Your task to perform on an android device: Is it going to rain today? Image 0: 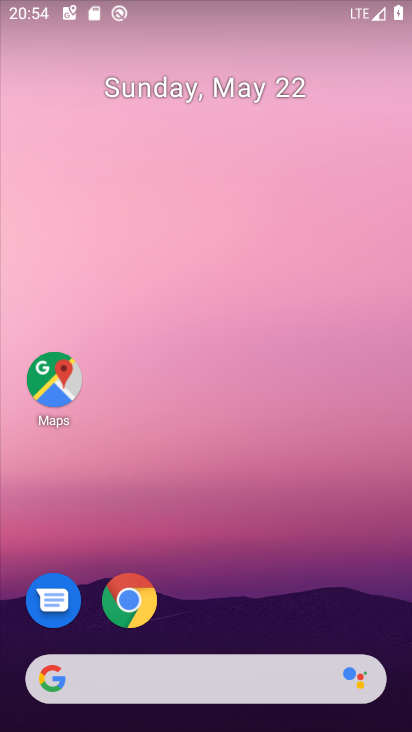
Step 0: drag from (177, 631) to (205, 337)
Your task to perform on an android device: Is it going to rain today? Image 1: 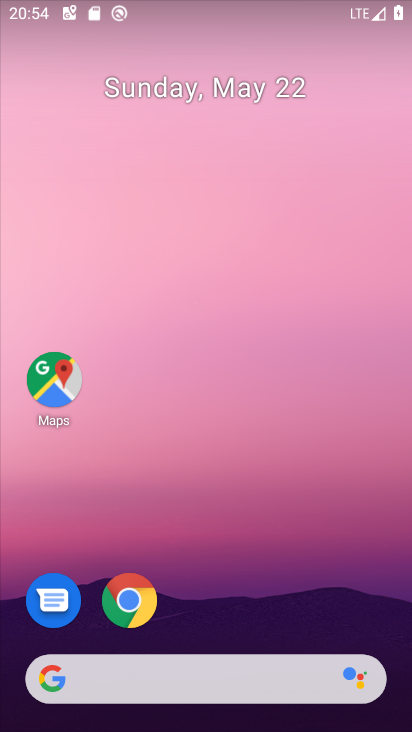
Step 1: drag from (233, 654) to (279, 247)
Your task to perform on an android device: Is it going to rain today? Image 2: 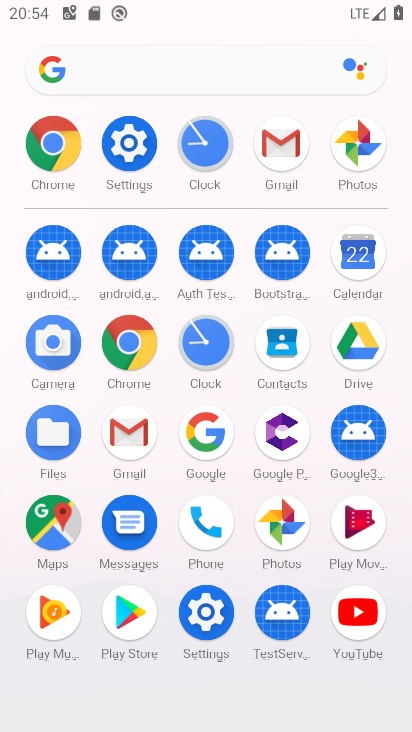
Step 2: click (214, 426)
Your task to perform on an android device: Is it going to rain today? Image 3: 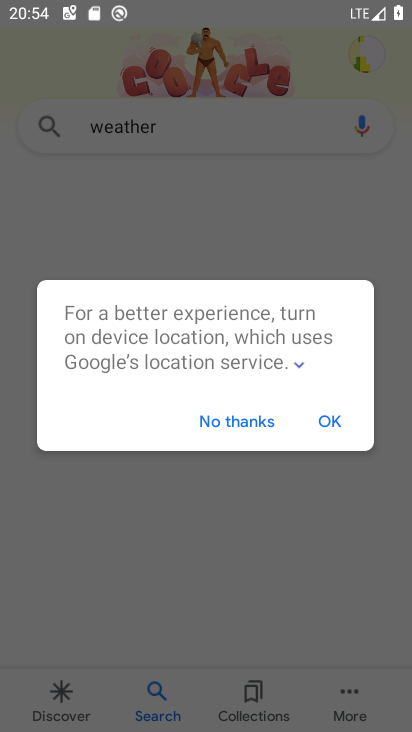
Step 3: click (320, 406)
Your task to perform on an android device: Is it going to rain today? Image 4: 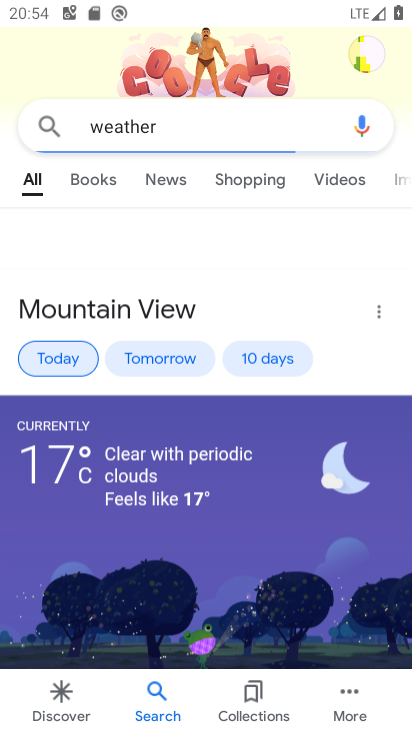
Step 4: click (317, 122)
Your task to perform on an android device: Is it going to rain today? Image 5: 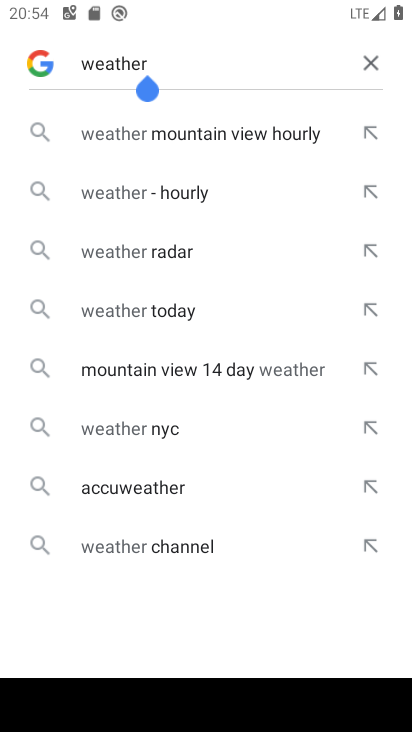
Step 5: click (354, 57)
Your task to perform on an android device: Is it going to rain today? Image 6: 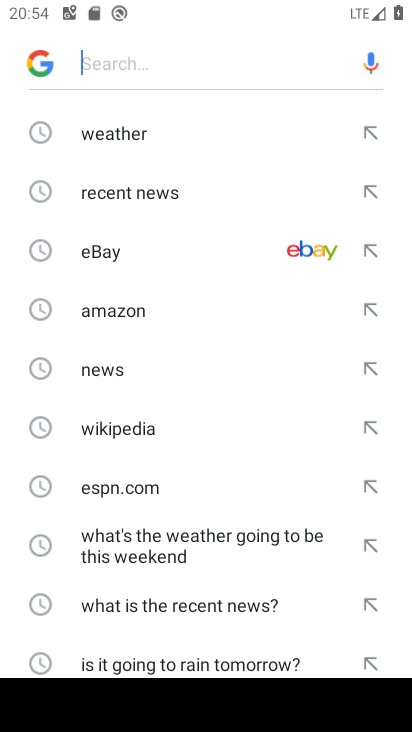
Step 6: drag from (180, 642) to (226, 375)
Your task to perform on an android device: Is it going to rain today? Image 7: 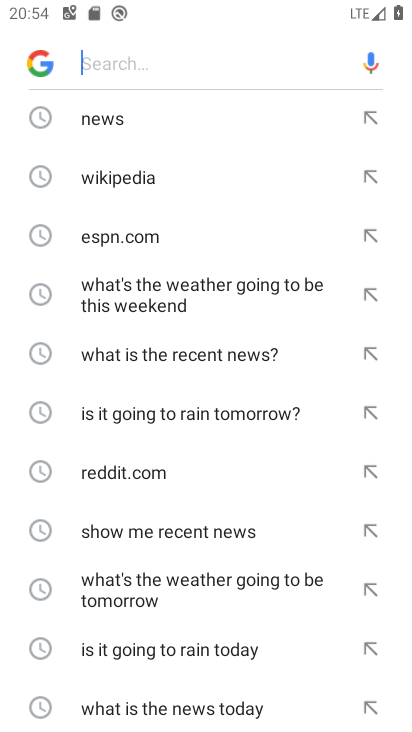
Step 7: click (214, 648)
Your task to perform on an android device: Is it going to rain today? Image 8: 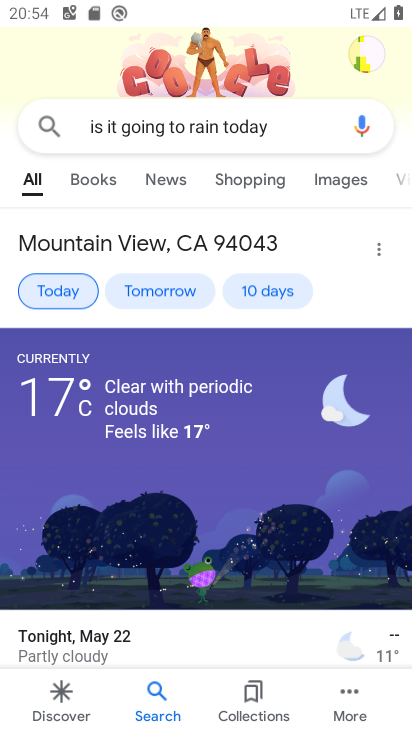
Step 8: drag from (200, 584) to (251, 344)
Your task to perform on an android device: Is it going to rain today? Image 9: 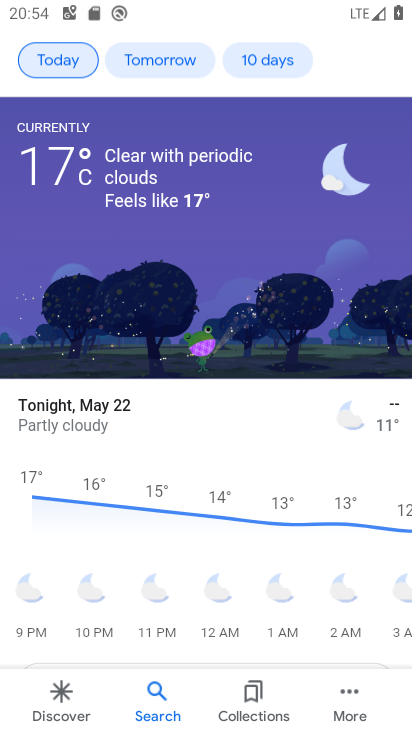
Step 9: drag from (215, 610) to (261, 321)
Your task to perform on an android device: Is it going to rain today? Image 10: 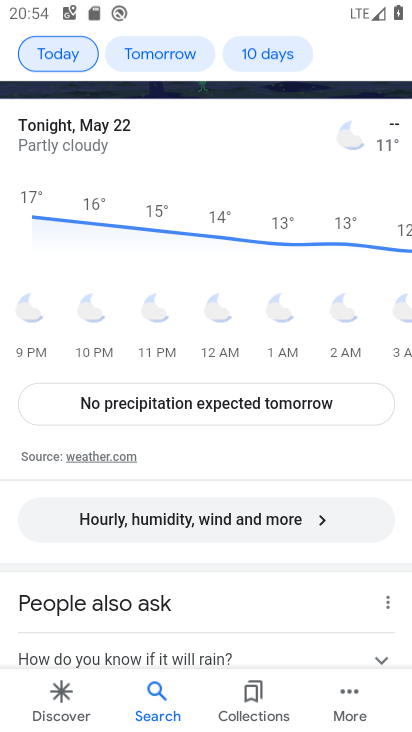
Step 10: click (206, 517)
Your task to perform on an android device: Is it going to rain today? Image 11: 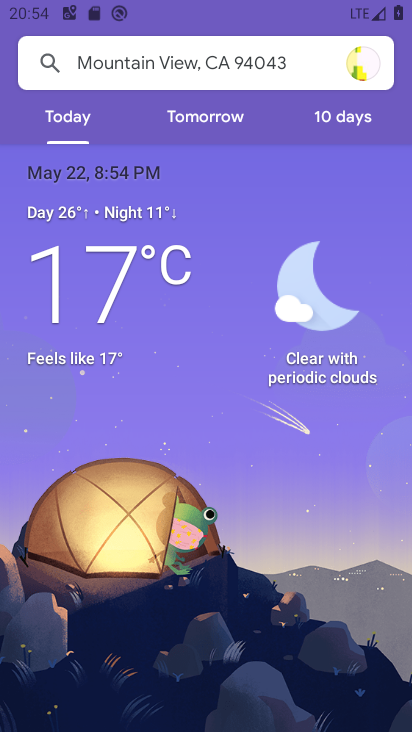
Step 11: task complete